Your task to perform on an android device: Open the stopwatch Image 0: 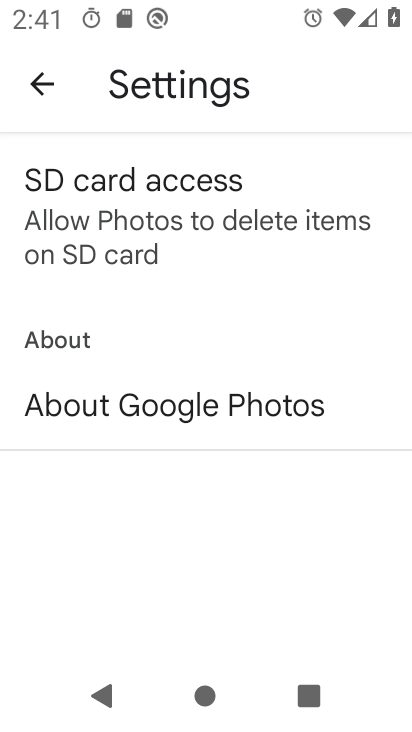
Step 0: press home button
Your task to perform on an android device: Open the stopwatch Image 1: 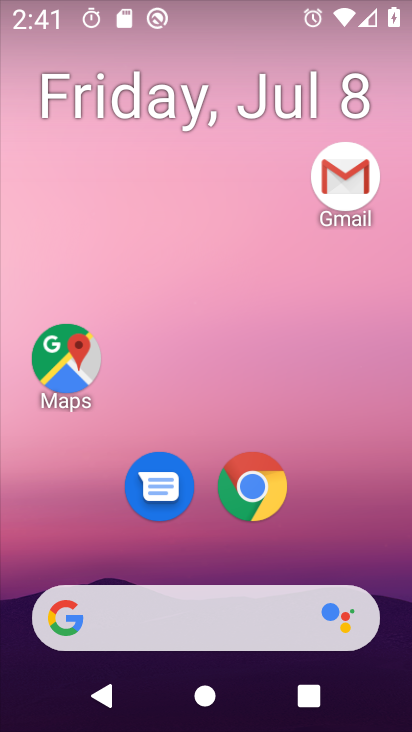
Step 1: drag from (366, 540) to (370, 137)
Your task to perform on an android device: Open the stopwatch Image 2: 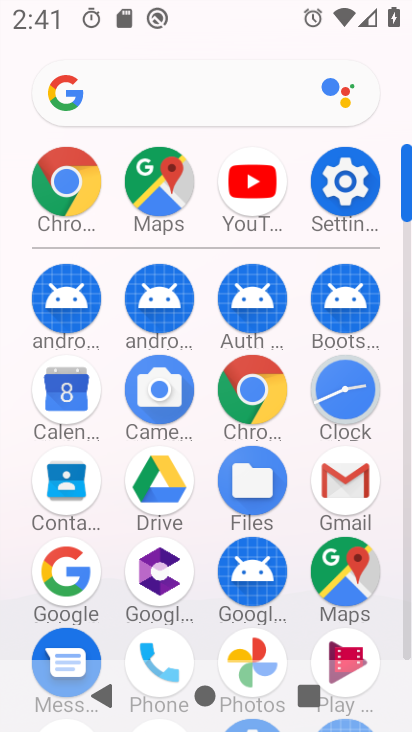
Step 2: click (348, 395)
Your task to perform on an android device: Open the stopwatch Image 3: 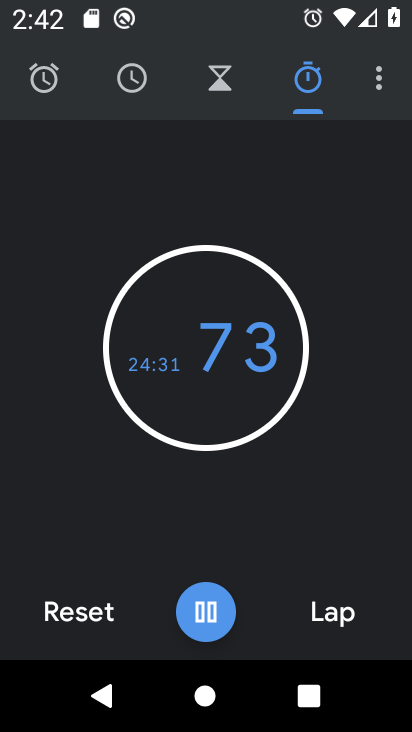
Step 3: task complete